Your task to perform on an android device: Go to eBay Image 0: 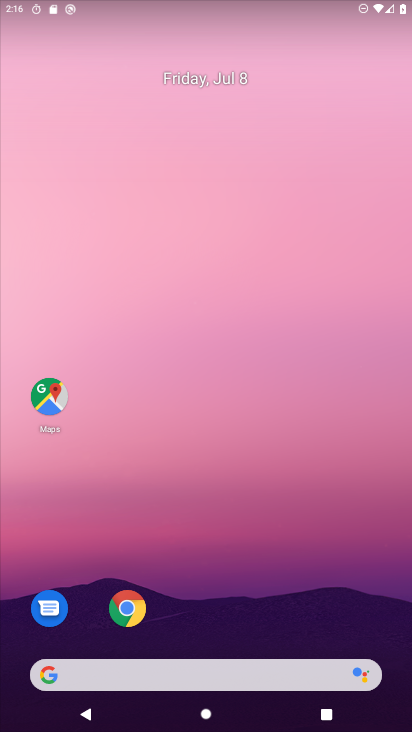
Step 0: click (128, 612)
Your task to perform on an android device: Go to eBay Image 1: 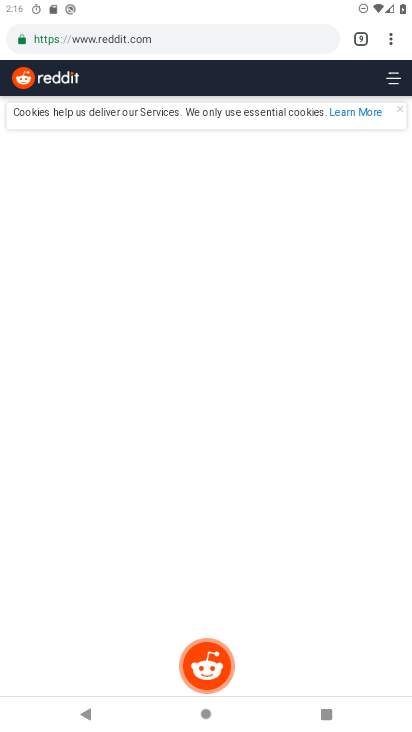
Step 1: click (392, 44)
Your task to perform on an android device: Go to eBay Image 2: 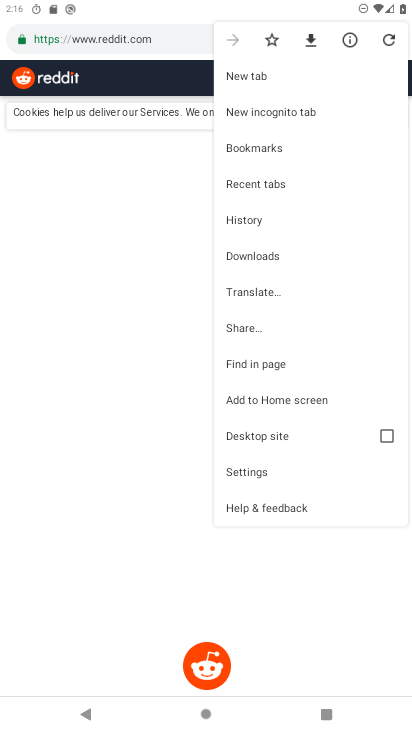
Step 2: click (248, 73)
Your task to perform on an android device: Go to eBay Image 3: 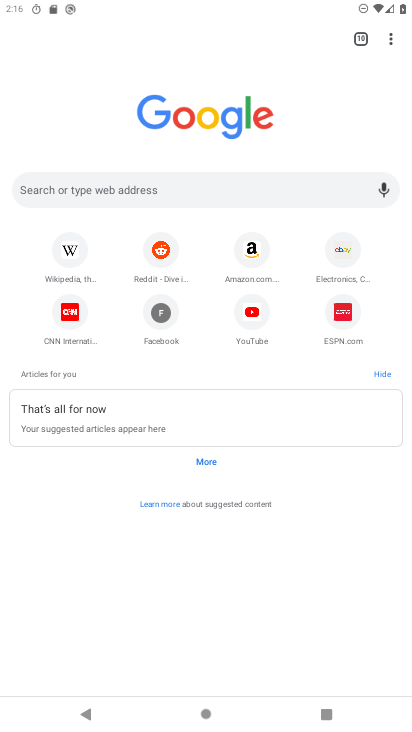
Step 3: click (242, 175)
Your task to perform on an android device: Go to eBay Image 4: 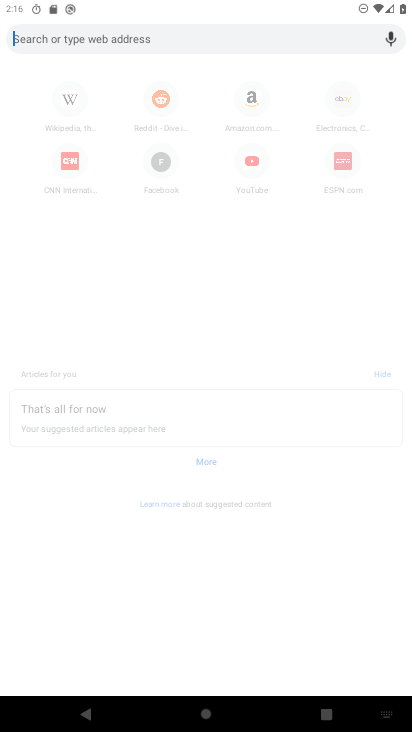
Step 4: type "eBay"
Your task to perform on an android device: Go to eBay Image 5: 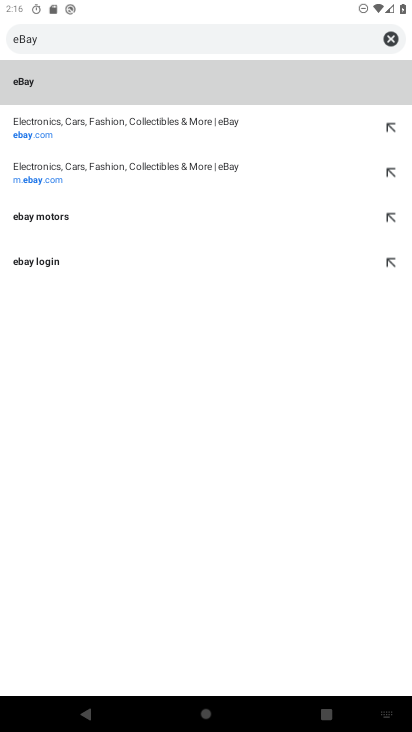
Step 5: click (21, 79)
Your task to perform on an android device: Go to eBay Image 6: 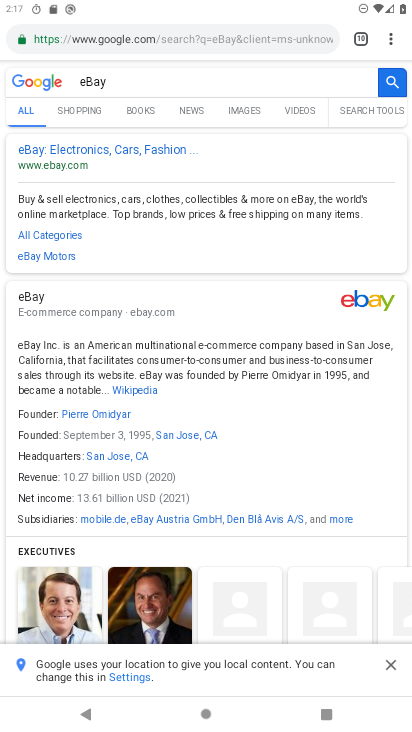
Step 6: click (36, 152)
Your task to perform on an android device: Go to eBay Image 7: 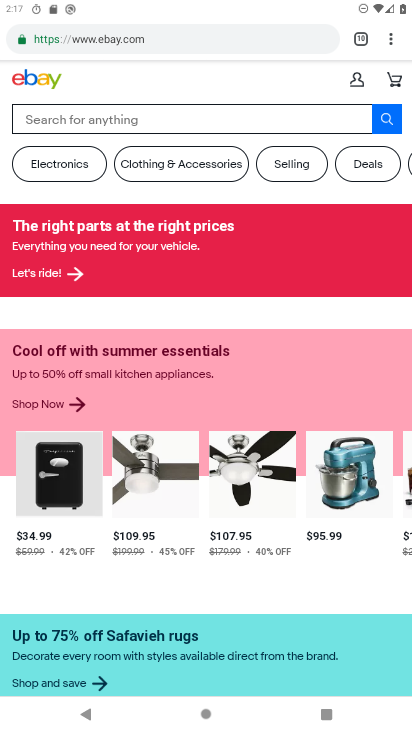
Step 7: task complete